Your task to perform on an android device: Open calendar and show me the fourth week of next month Image 0: 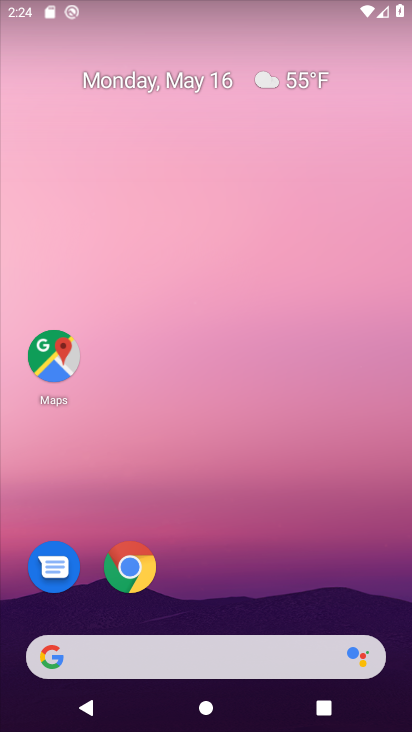
Step 0: drag from (229, 600) to (247, 69)
Your task to perform on an android device: Open calendar and show me the fourth week of next month Image 1: 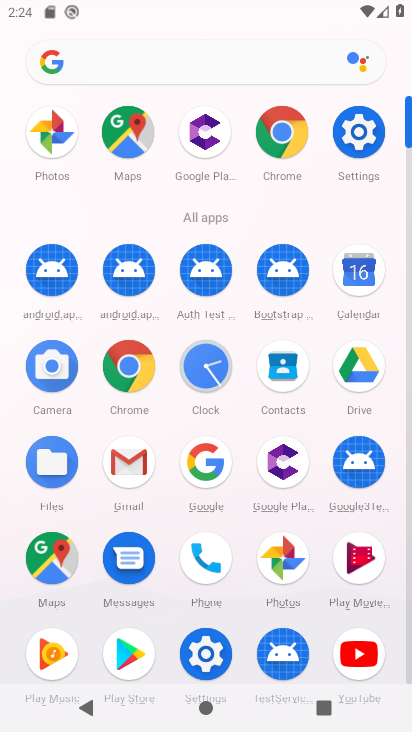
Step 1: click (361, 275)
Your task to perform on an android device: Open calendar and show me the fourth week of next month Image 2: 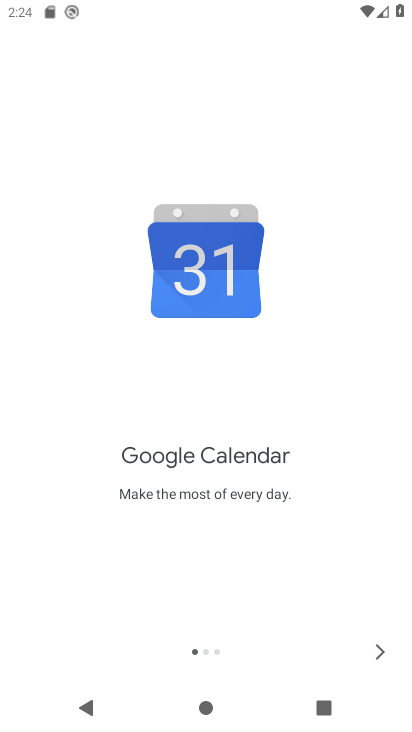
Step 2: click (383, 651)
Your task to perform on an android device: Open calendar and show me the fourth week of next month Image 3: 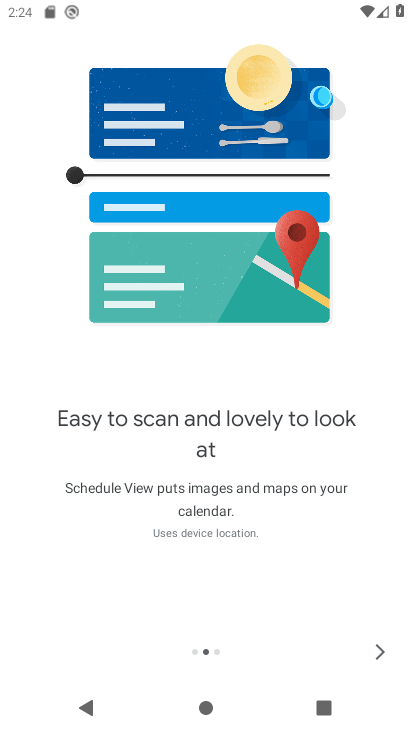
Step 3: click (383, 651)
Your task to perform on an android device: Open calendar and show me the fourth week of next month Image 4: 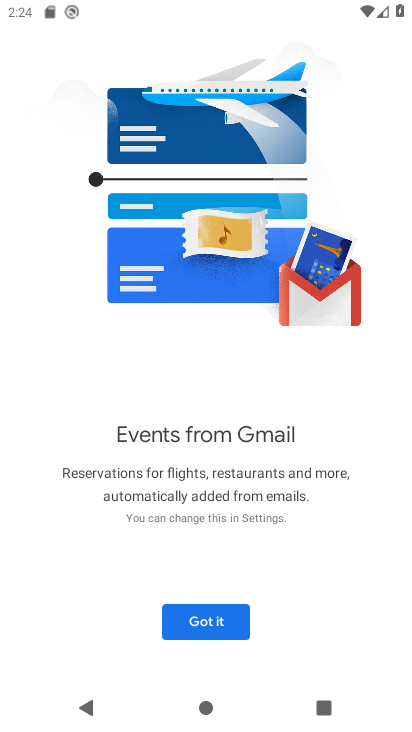
Step 4: click (170, 620)
Your task to perform on an android device: Open calendar and show me the fourth week of next month Image 5: 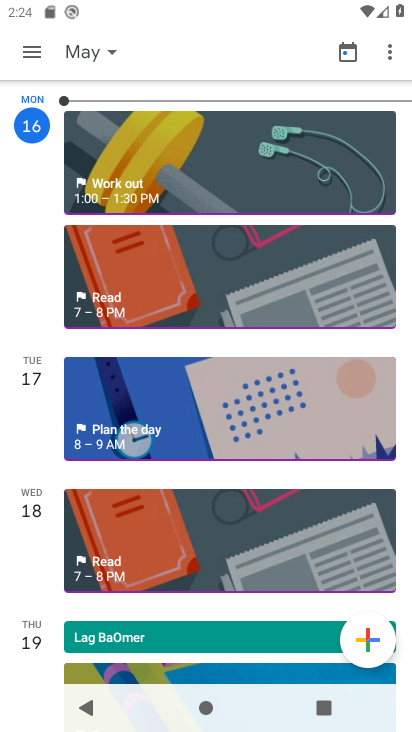
Step 5: click (27, 56)
Your task to perform on an android device: Open calendar and show me the fourth week of next month Image 6: 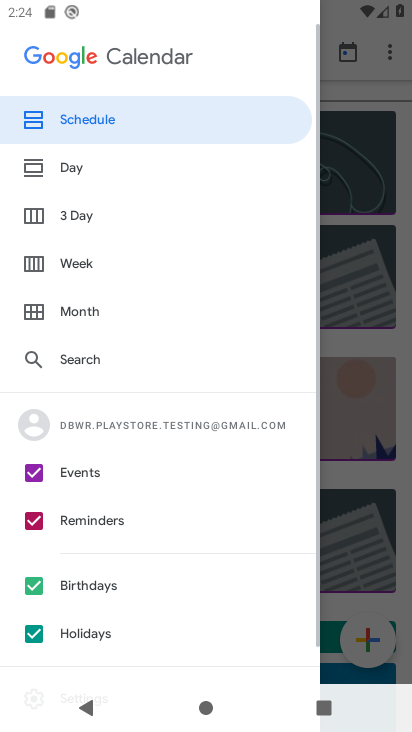
Step 6: click (107, 266)
Your task to perform on an android device: Open calendar and show me the fourth week of next month Image 7: 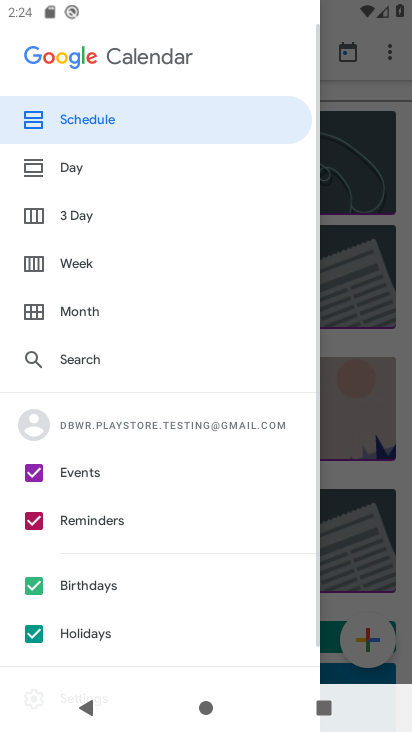
Step 7: click (82, 270)
Your task to perform on an android device: Open calendar and show me the fourth week of next month Image 8: 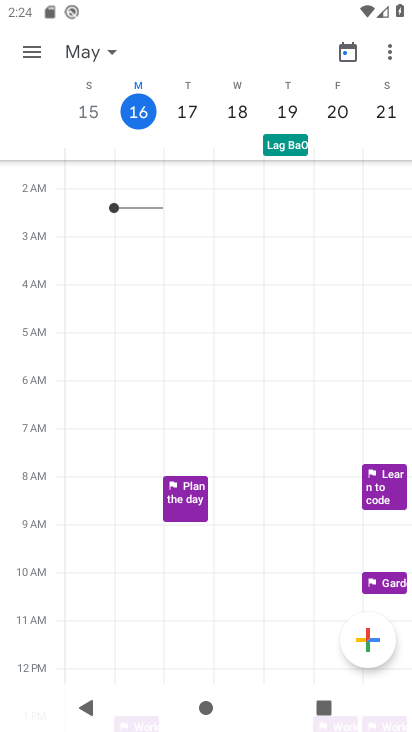
Step 8: click (102, 50)
Your task to perform on an android device: Open calendar and show me the fourth week of next month Image 9: 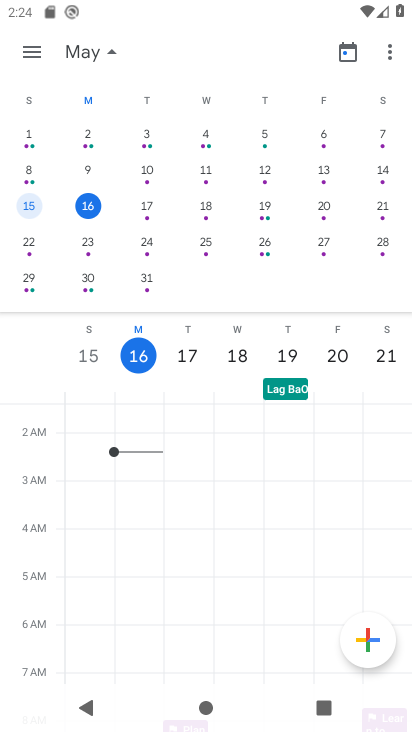
Step 9: drag from (349, 213) to (0, 220)
Your task to perform on an android device: Open calendar and show me the fourth week of next month Image 10: 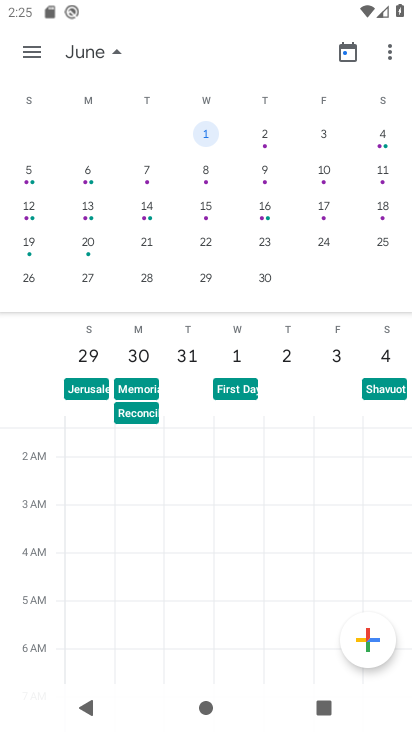
Step 10: click (74, 275)
Your task to perform on an android device: Open calendar and show me the fourth week of next month Image 11: 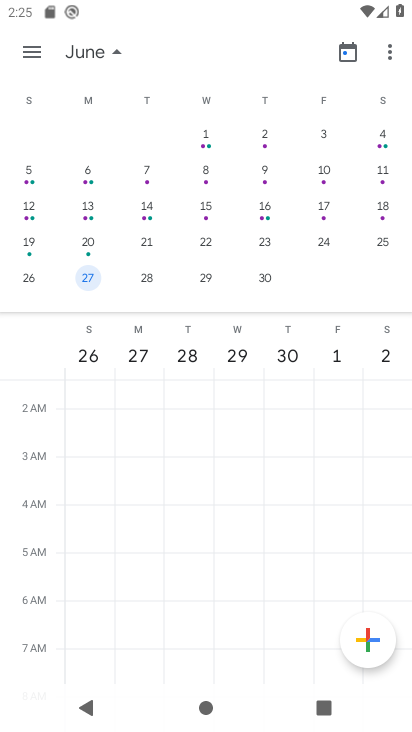
Step 11: click (157, 276)
Your task to perform on an android device: Open calendar and show me the fourth week of next month Image 12: 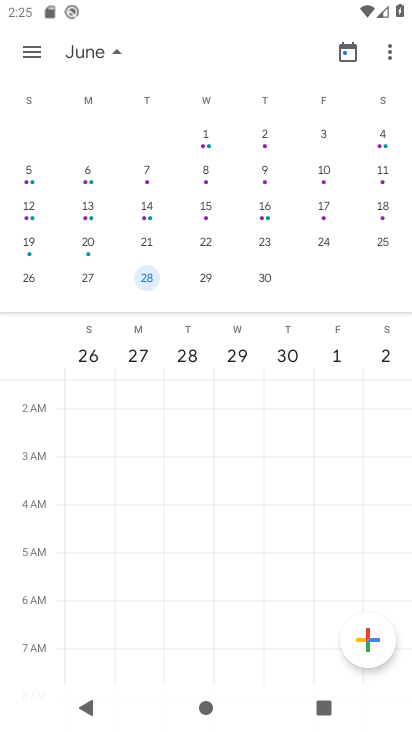
Step 12: task complete